Your task to perform on an android device: delete a single message in the gmail app Image 0: 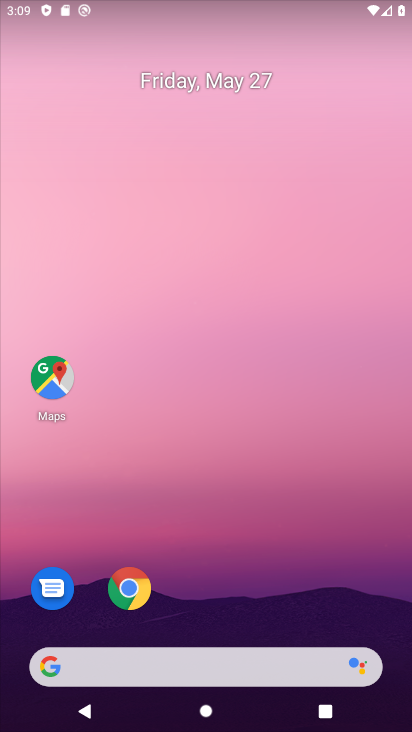
Step 0: drag from (343, 590) to (280, 166)
Your task to perform on an android device: delete a single message in the gmail app Image 1: 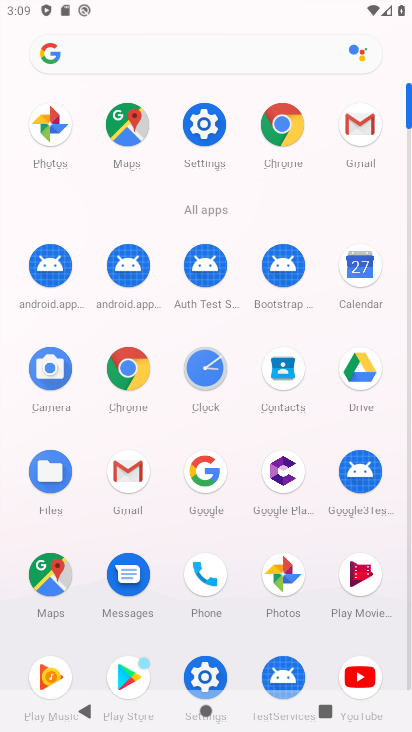
Step 1: click (368, 138)
Your task to perform on an android device: delete a single message in the gmail app Image 2: 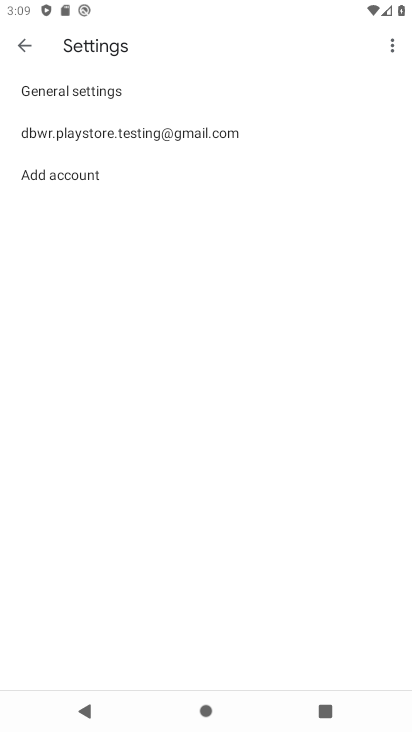
Step 2: click (67, 129)
Your task to perform on an android device: delete a single message in the gmail app Image 3: 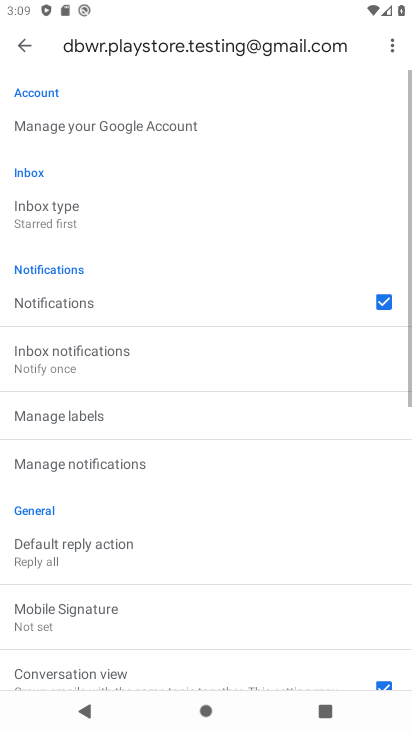
Step 3: click (26, 51)
Your task to perform on an android device: delete a single message in the gmail app Image 4: 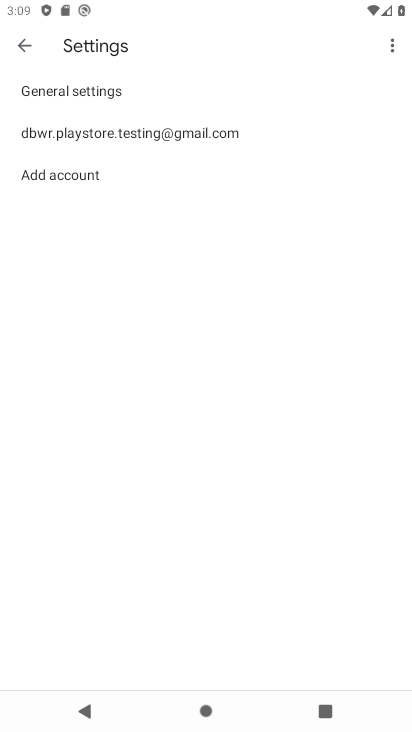
Step 4: click (26, 51)
Your task to perform on an android device: delete a single message in the gmail app Image 5: 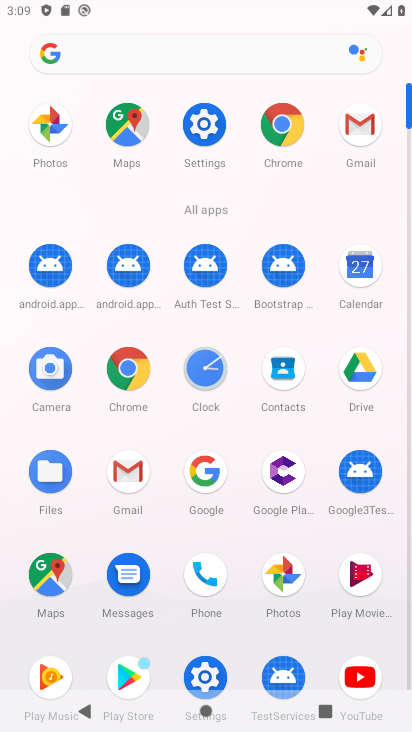
Step 5: click (120, 472)
Your task to perform on an android device: delete a single message in the gmail app Image 6: 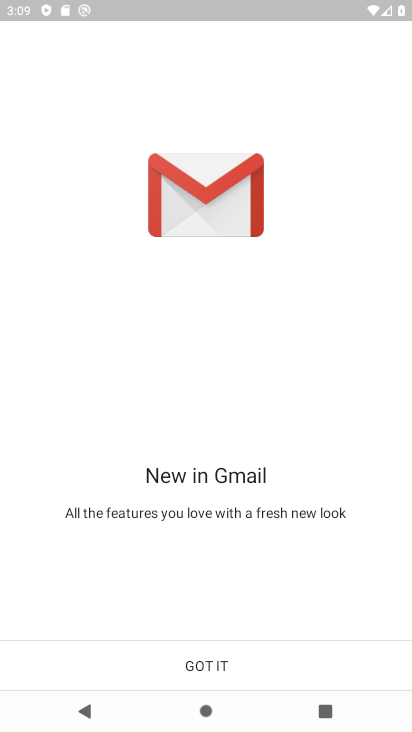
Step 6: click (192, 669)
Your task to perform on an android device: delete a single message in the gmail app Image 7: 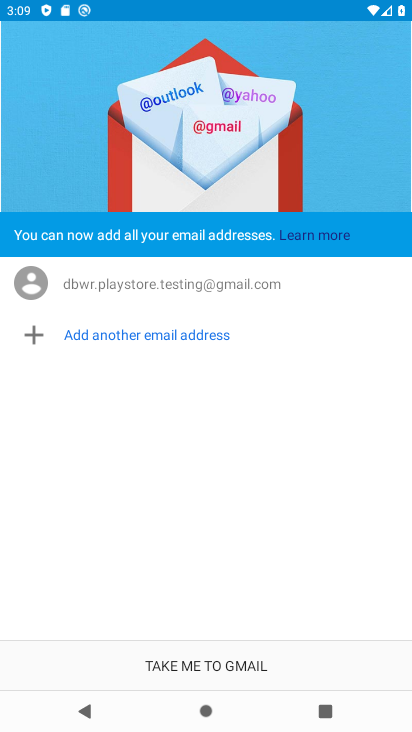
Step 7: click (192, 669)
Your task to perform on an android device: delete a single message in the gmail app Image 8: 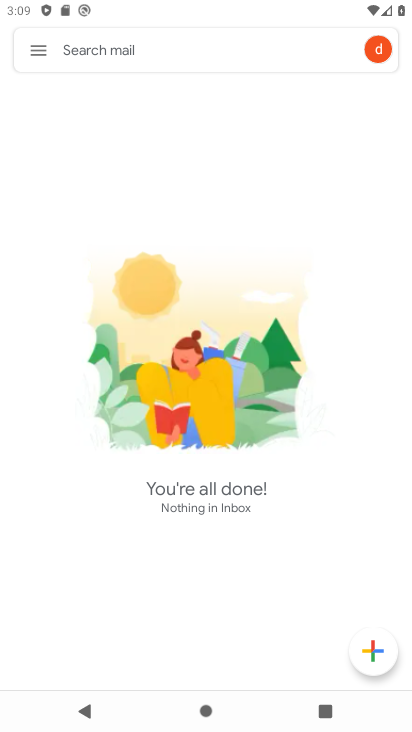
Step 8: click (47, 45)
Your task to perform on an android device: delete a single message in the gmail app Image 9: 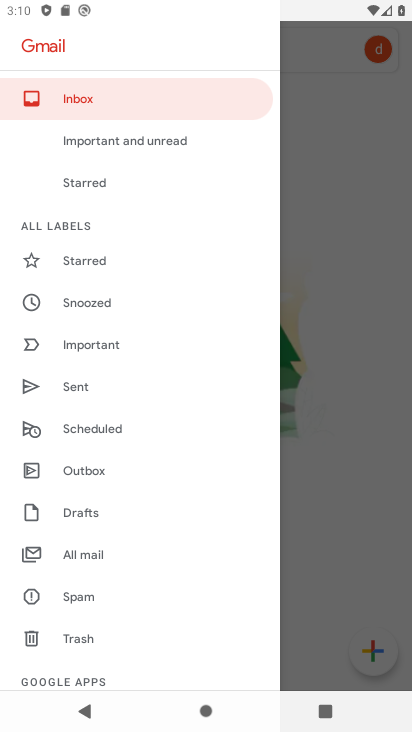
Step 9: click (84, 555)
Your task to perform on an android device: delete a single message in the gmail app Image 10: 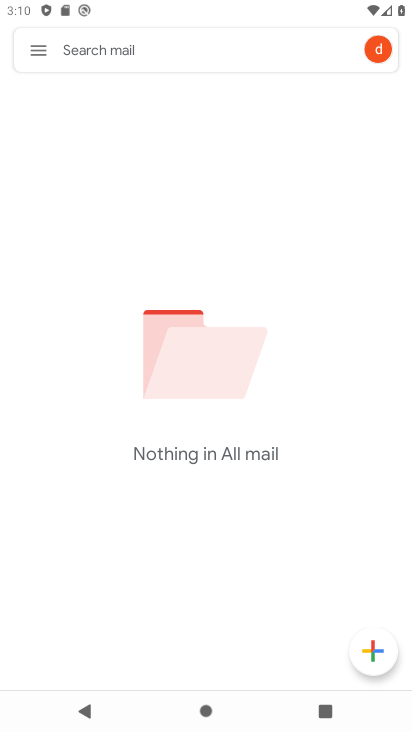
Step 10: task complete